Your task to perform on an android device: toggle priority inbox in the gmail app Image 0: 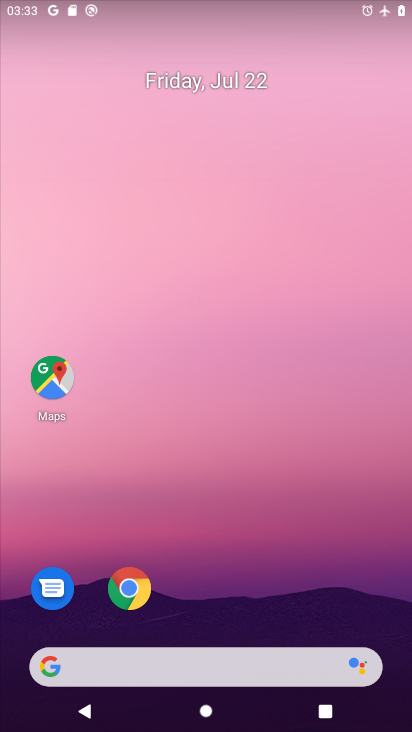
Step 0: drag from (278, 549) to (283, 90)
Your task to perform on an android device: toggle priority inbox in the gmail app Image 1: 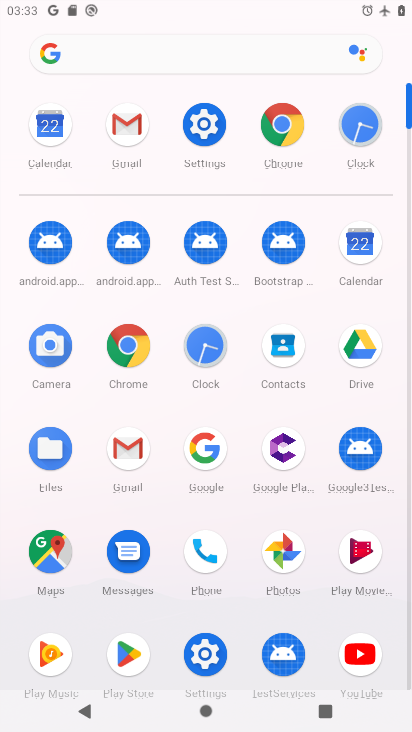
Step 1: click (127, 447)
Your task to perform on an android device: toggle priority inbox in the gmail app Image 2: 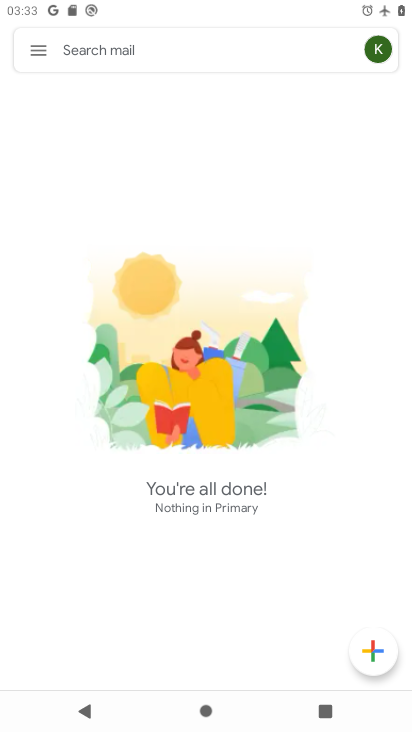
Step 2: click (46, 42)
Your task to perform on an android device: toggle priority inbox in the gmail app Image 3: 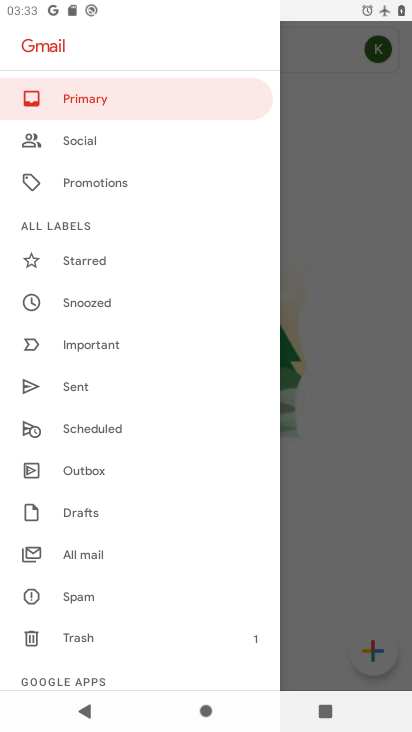
Step 3: drag from (128, 530) to (130, 244)
Your task to perform on an android device: toggle priority inbox in the gmail app Image 4: 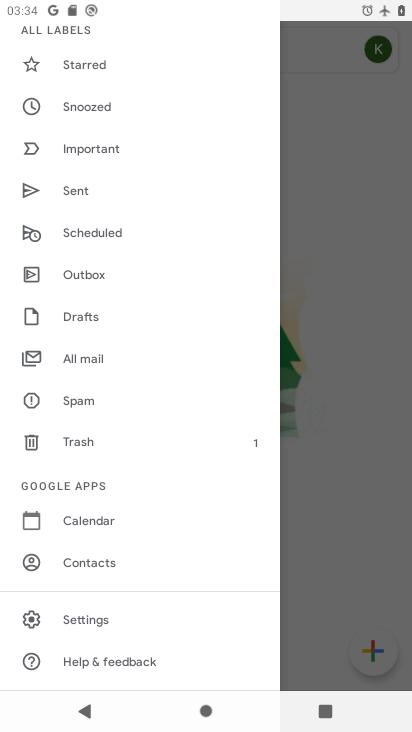
Step 4: click (86, 618)
Your task to perform on an android device: toggle priority inbox in the gmail app Image 5: 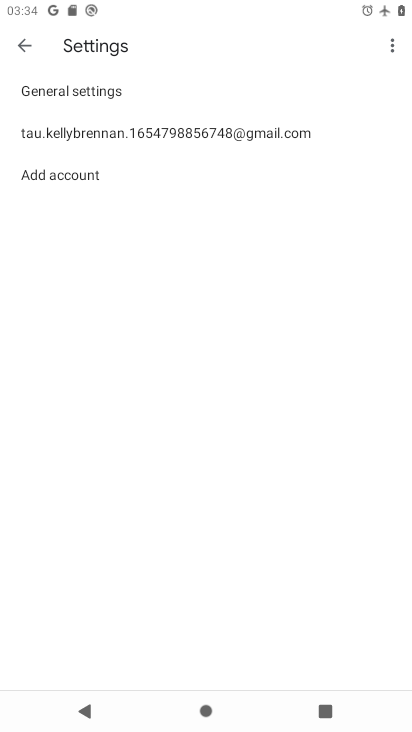
Step 5: click (128, 134)
Your task to perform on an android device: toggle priority inbox in the gmail app Image 6: 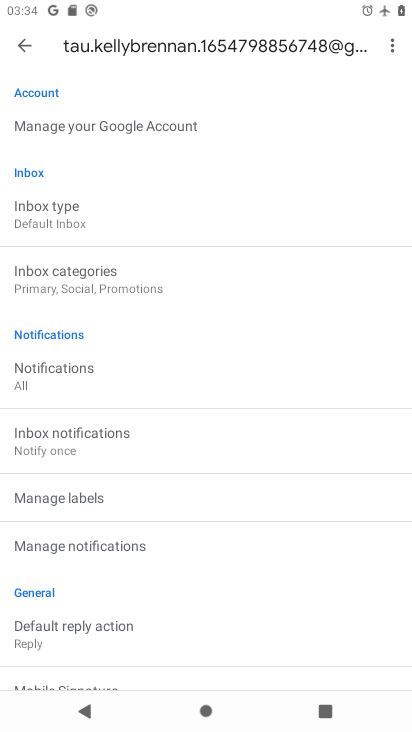
Step 6: click (33, 227)
Your task to perform on an android device: toggle priority inbox in the gmail app Image 7: 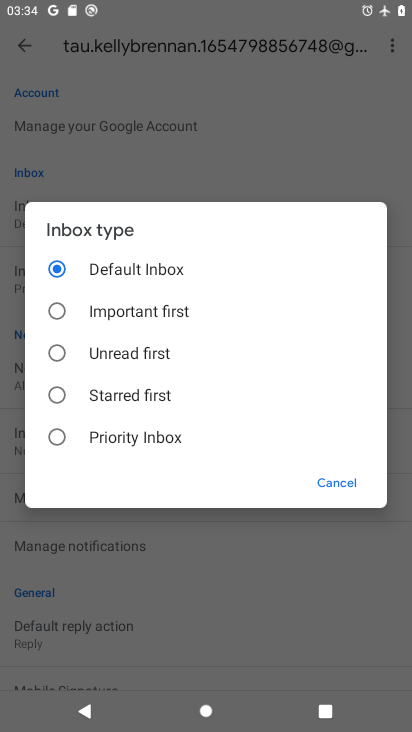
Step 7: click (158, 429)
Your task to perform on an android device: toggle priority inbox in the gmail app Image 8: 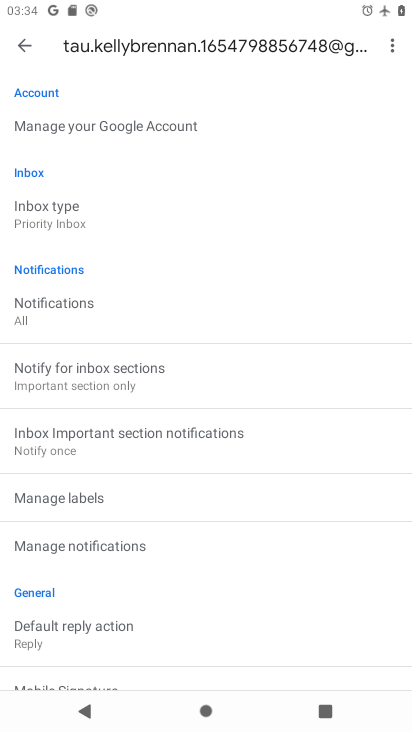
Step 8: click (41, 208)
Your task to perform on an android device: toggle priority inbox in the gmail app Image 9: 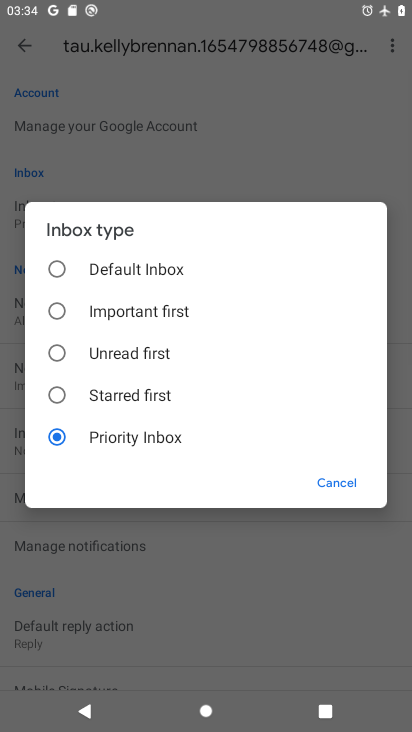
Step 9: click (111, 260)
Your task to perform on an android device: toggle priority inbox in the gmail app Image 10: 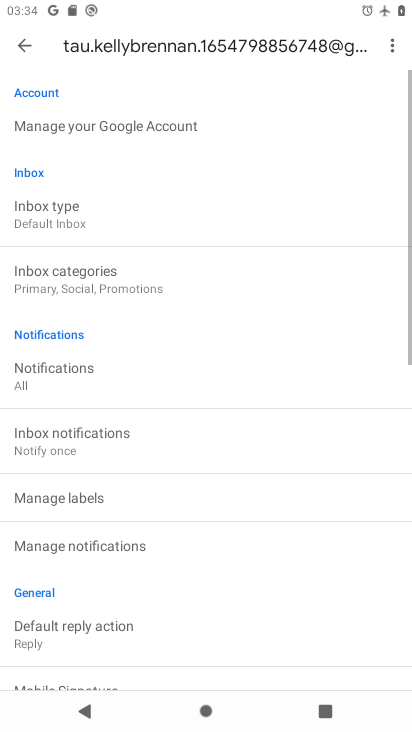
Step 10: task complete